Your task to perform on an android device: Turn off the flashlight Image 0: 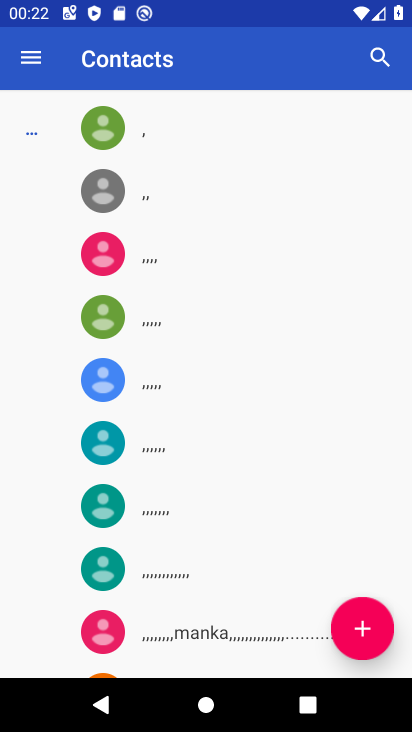
Step 0: press home button
Your task to perform on an android device: Turn off the flashlight Image 1: 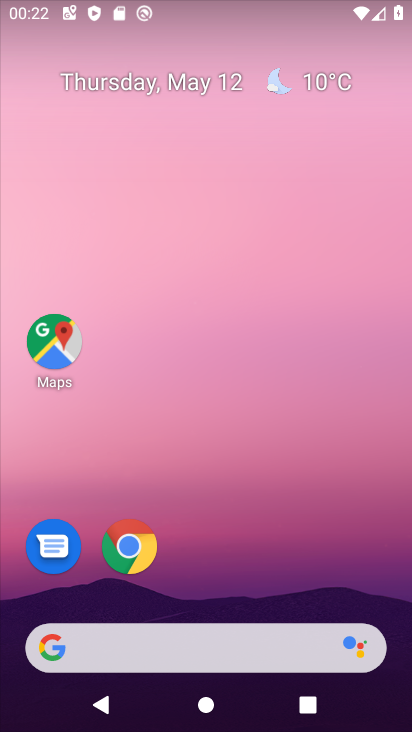
Step 1: drag from (184, 587) to (248, 262)
Your task to perform on an android device: Turn off the flashlight Image 2: 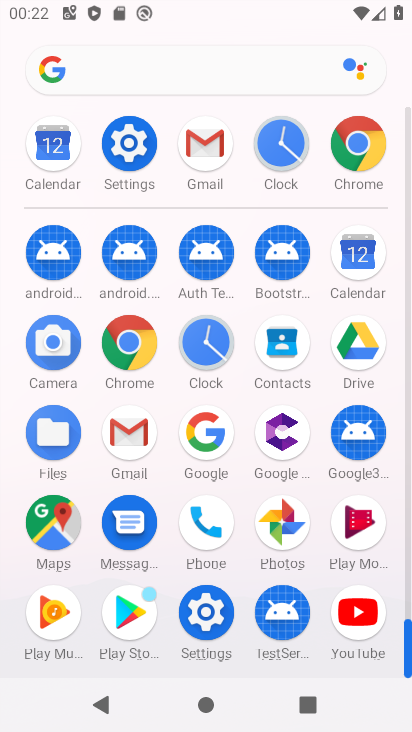
Step 2: click (207, 617)
Your task to perform on an android device: Turn off the flashlight Image 3: 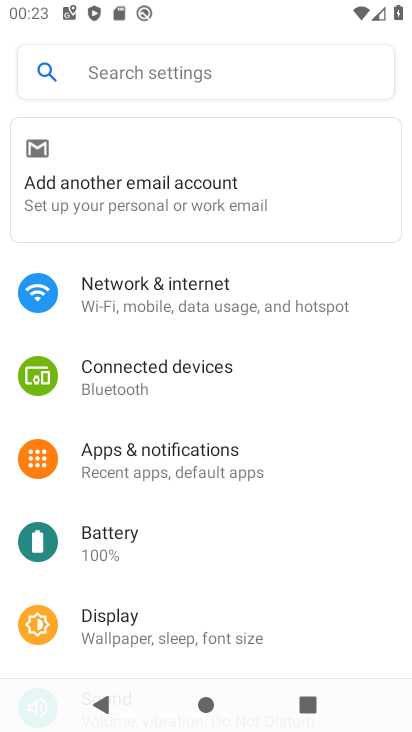
Step 3: drag from (168, 595) to (177, 411)
Your task to perform on an android device: Turn off the flashlight Image 4: 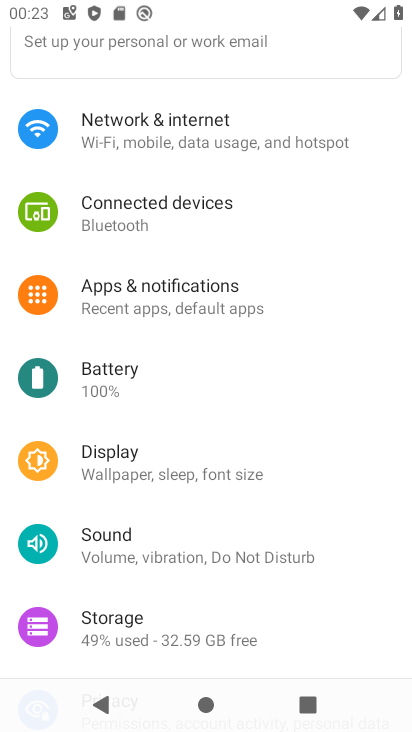
Step 4: click (140, 465)
Your task to perform on an android device: Turn off the flashlight Image 5: 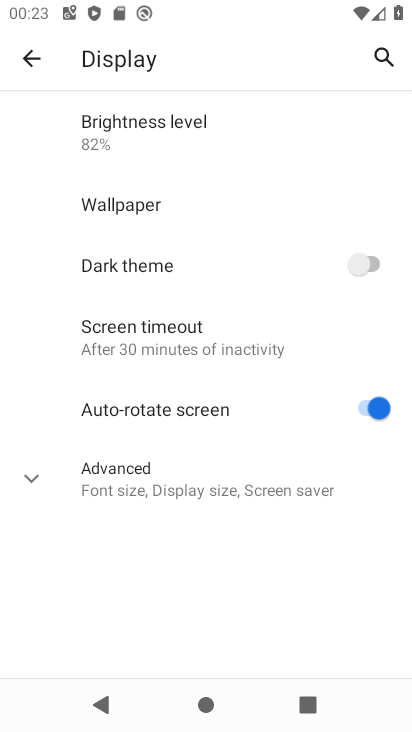
Step 5: task complete